Your task to perform on an android device: Search for a new foundation on Sephora Image 0: 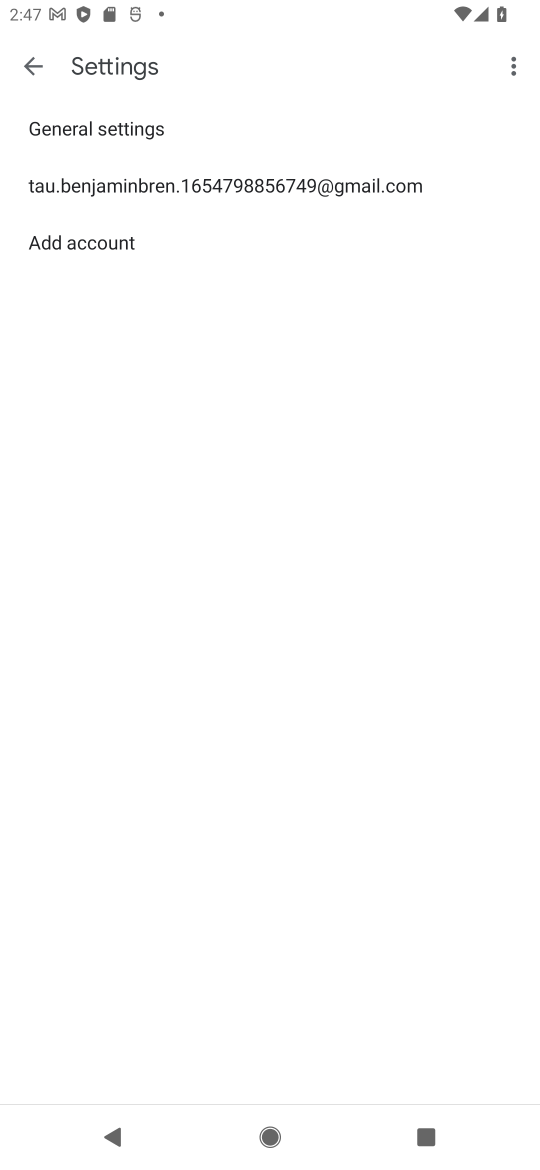
Step 0: press home button
Your task to perform on an android device: Search for a new foundation on Sephora Image 1: 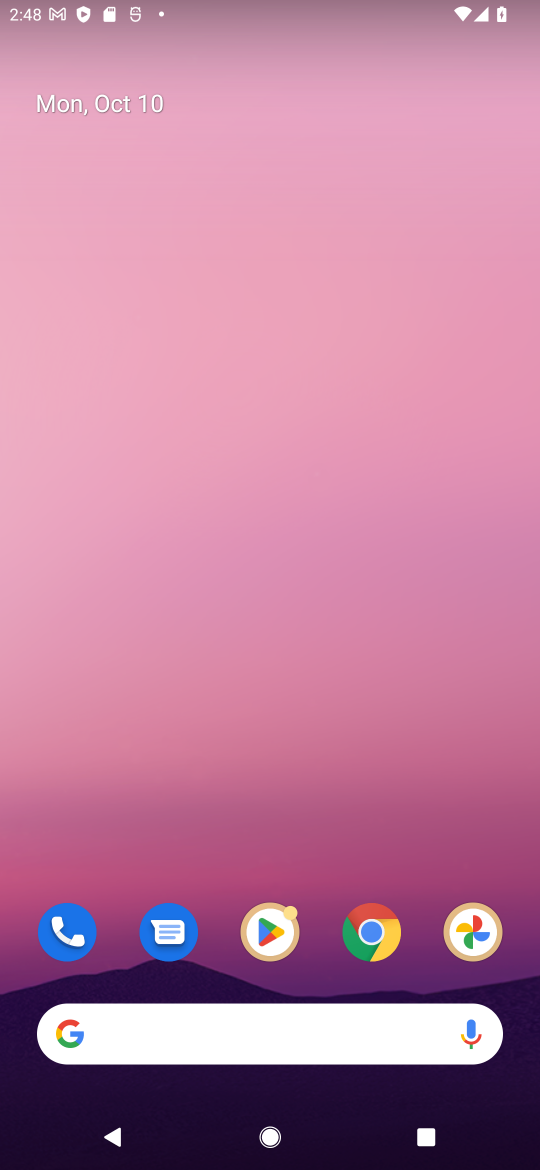
Step 1: click (262, 1045)
Your task to perform on an android device: Search for a new foundation on Sephora Image 2: 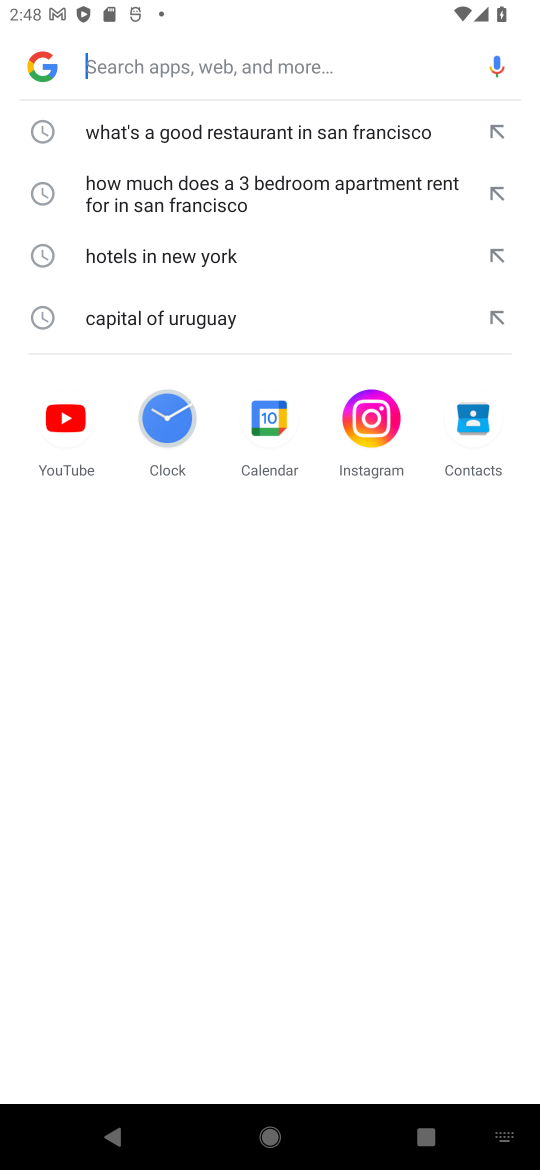
Step 2: type "new foundation on Sephora"
Your task to perform on an android device: Search for a new foundation on Sephora Image 3: 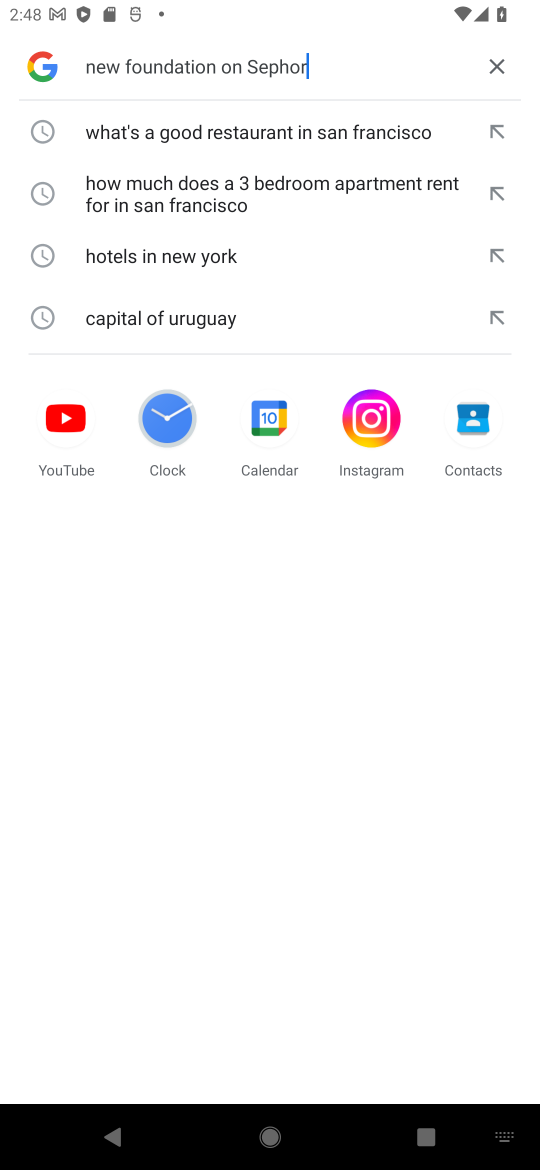
Step 3: press enter
Your task to perform on an android device: Search for a new foundation on Sephora Image 4: 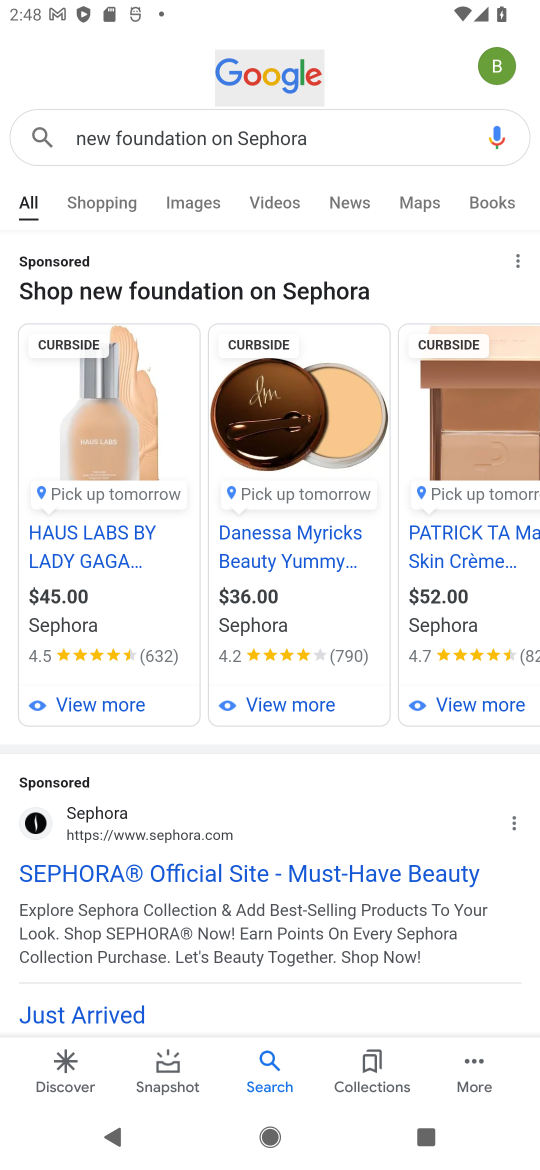
Step 4: task complete